Your task to perform on an android device: Open location settings Image 0: 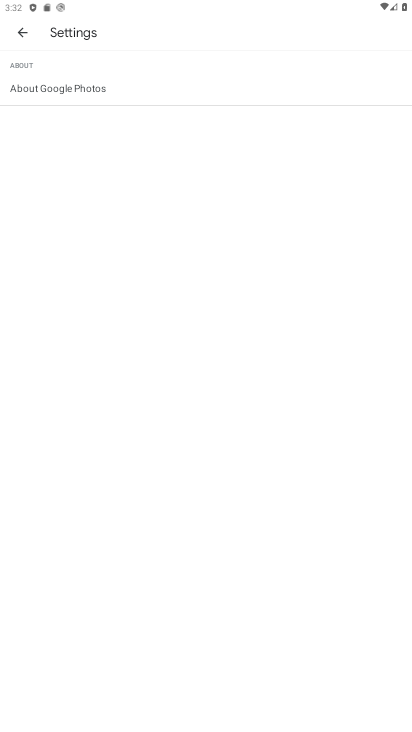
Step 0: press home button
Your task to perform on an android device: Open location settings Image 1: 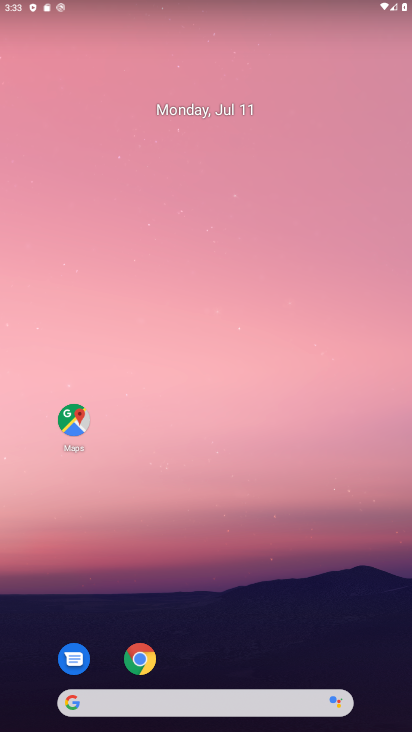
Step 1: drag from (167, 645) to (273, 214)
Your task to perform on an android device: Open location settings Image 2: 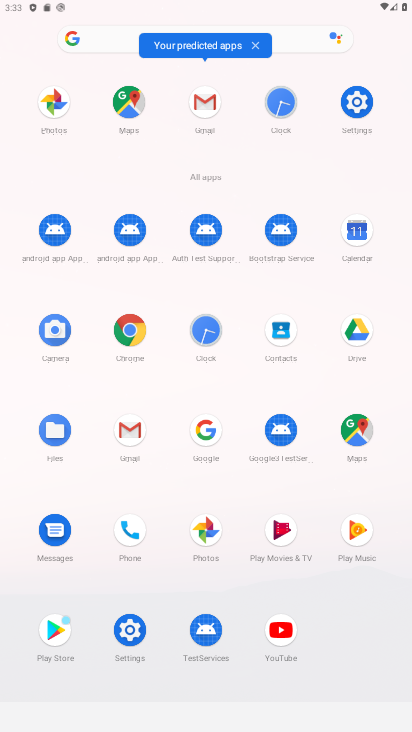
Step 2: click (144, 624)
Your task to perform on an android device: Open location settings Image 3: 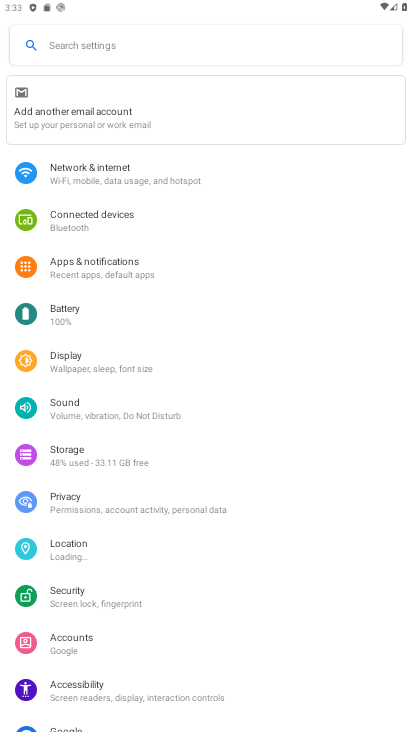
Step 3: click (105, 556)
Your task to perform on an android device: Open location settings Image 4: 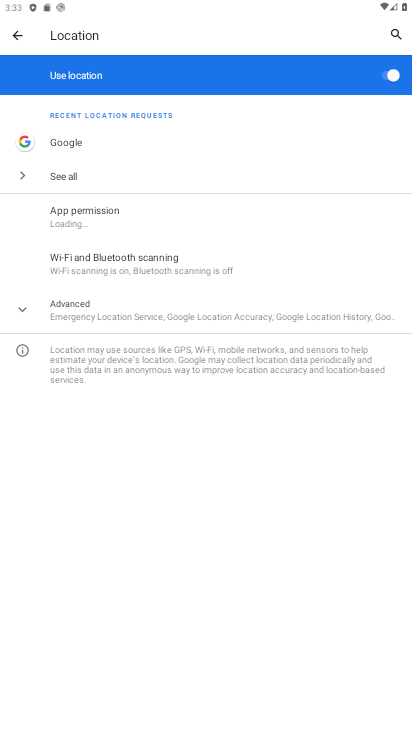
Step 4: task complete